Your task to perform on an android device: change the upload size in google photos Image 0: 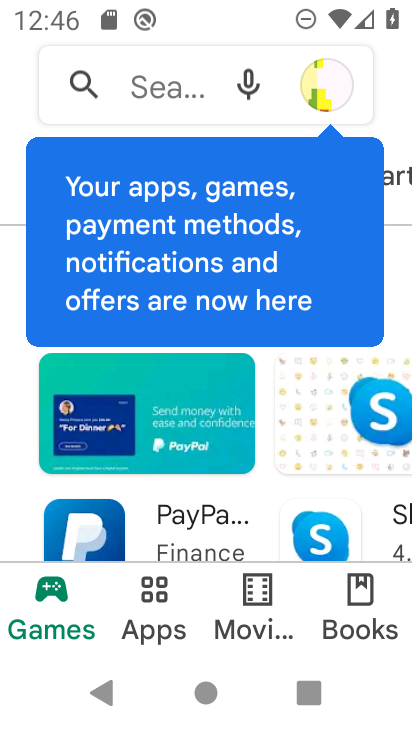
Step 0: press home button
Your task to perform on an android device: change the upload size in google photos Image 1: 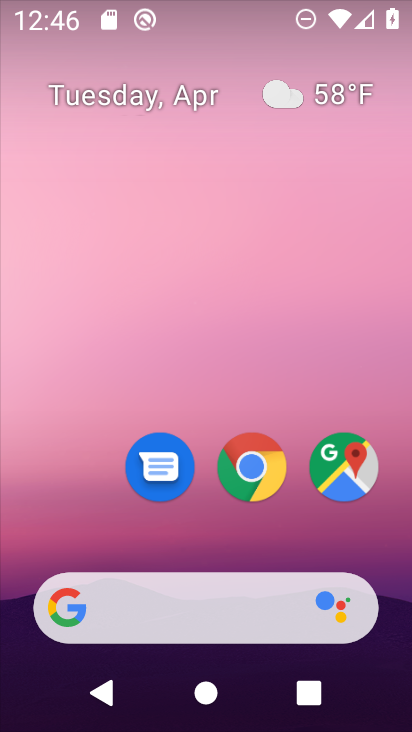
Step 1: drag from (163, 553) to (243, 0)
Your task to perform on an android device: change the upload size in google photos Image 2: 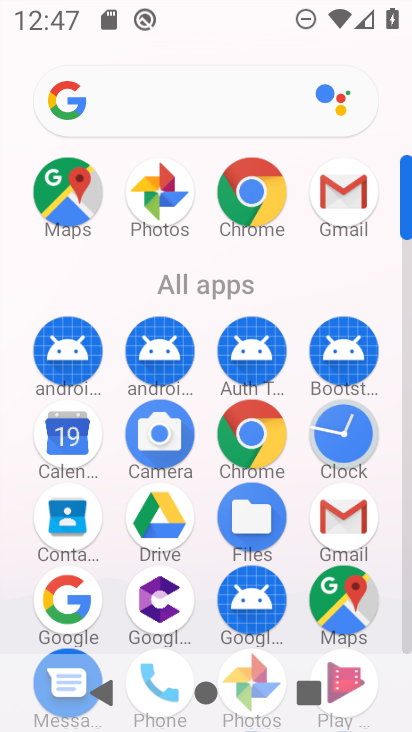
Step 2: click (157, 184)
Your task to perform on an android device: change the upload size in google photos Image 3: 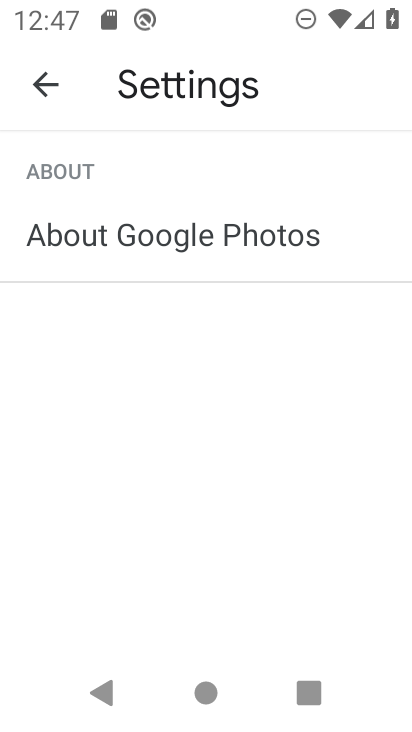
Step 3: click (54, 86)
Your task to perform on an android device: change the upload size in google photos Image 4: 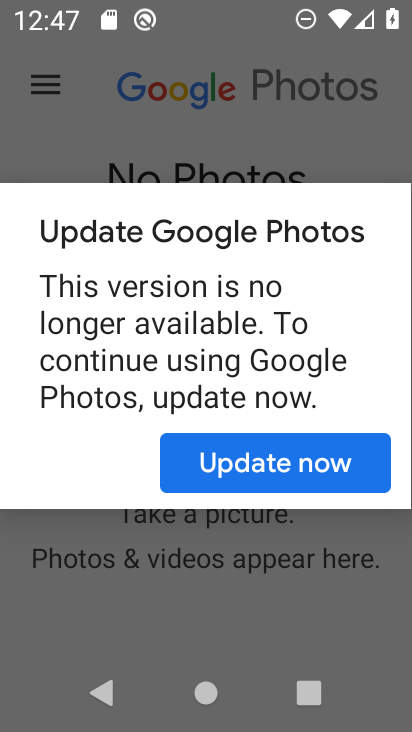
Step 4: click (244, 458)
Your task to perform on an android device: change the upload size in google photos Image 5: 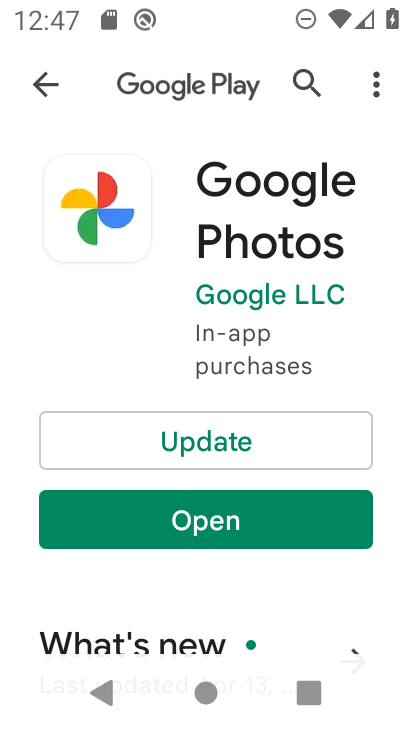
Step 5: click (191, 514)
Your task to perform on an android device: change the upload size in google photos Image 6: 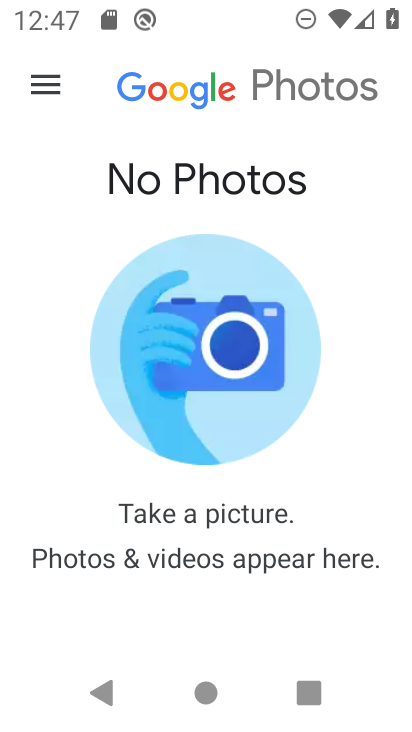
Step 6: click (26, 83)
Your task to perform on an android device: change the upload size in google photos Image 7: 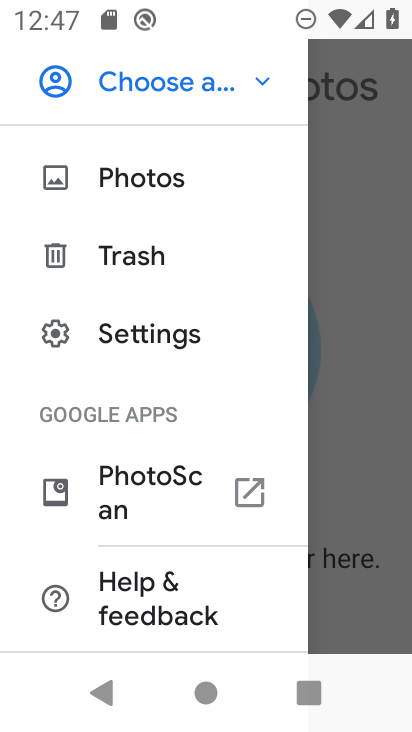
Step 7: click (188, 340)
Your task to perform on an android device: change the upload size in google photos Image 8: 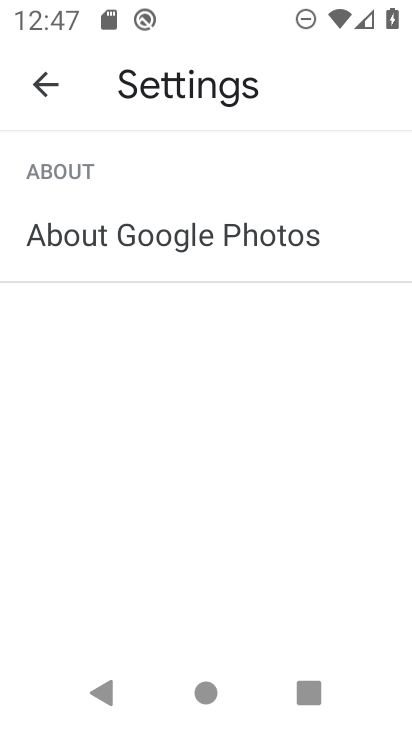
Step 8: click (162, 262)
Your task to perform on an android device: change the upload size in google photos Image 9: 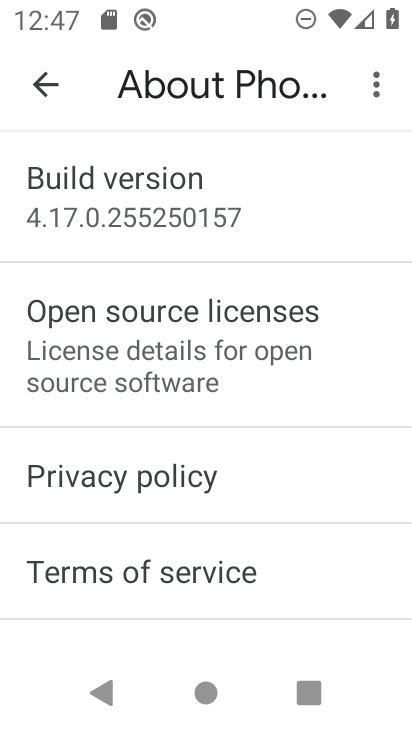
Step 9: drag from (149, 539) to (208, 164)
Your task to perform on an android device: change the upload size in google photos Image 10: 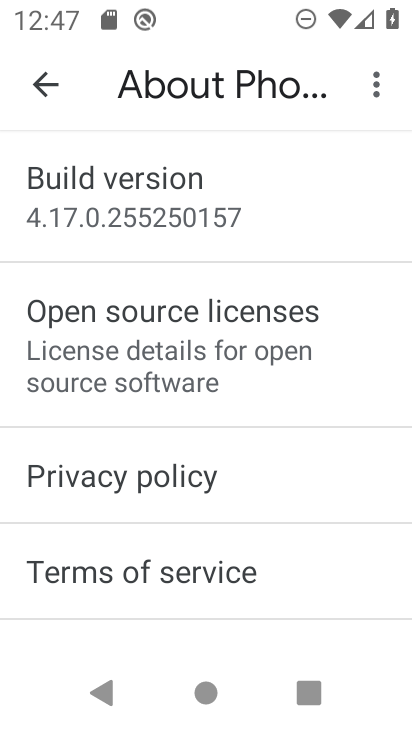
Step 10: drag from (220, 565) to (216, 140)
Your task to perform on an android device: change the upload size in google photos Image 11: 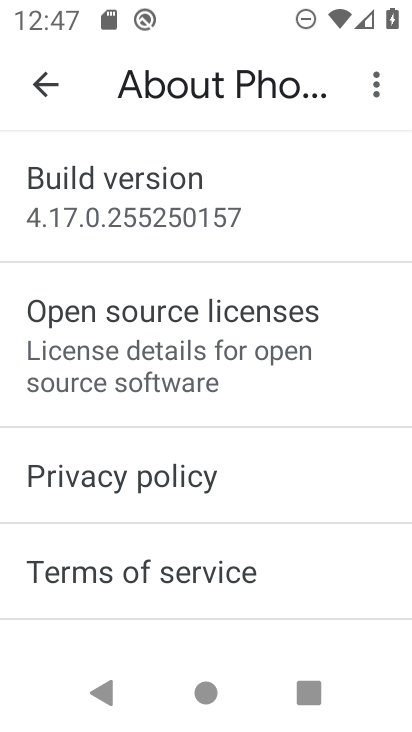
Step 11: click (383, 99)
Your task to perform on an android device: change the upload size in google photos Image 12: 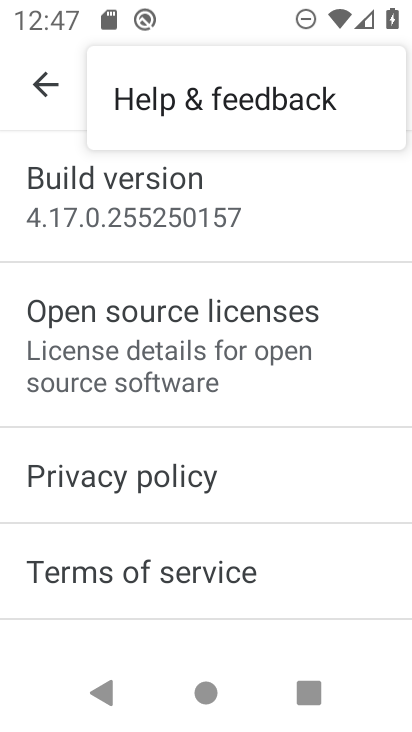
Step 12: click (31, 111)
Your task to perform on an android device: change the upload size in google photos Image 13: 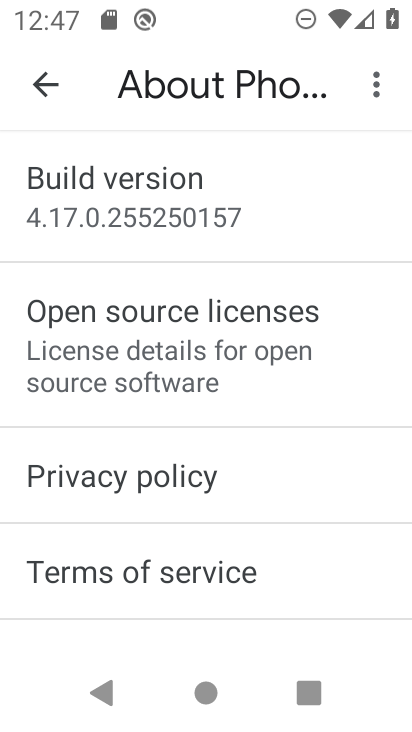
Step 13: click (56, 87)
Your task to perform on an android device: change the upload size in google photos Image 14: 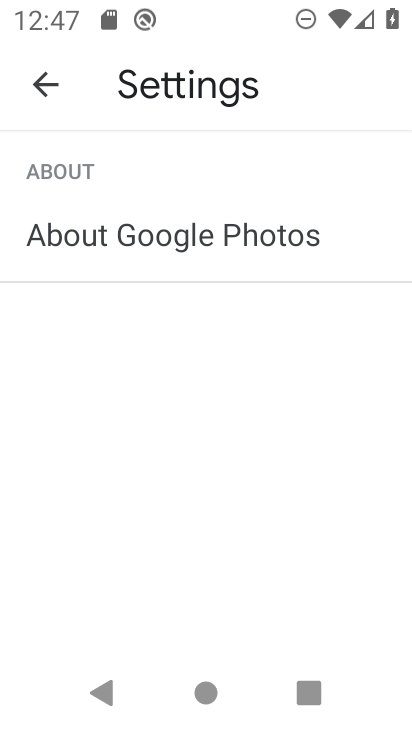
Step 14: click (56, 87)
Your task to perform on an android device: change the upload size in google photos Image 15: 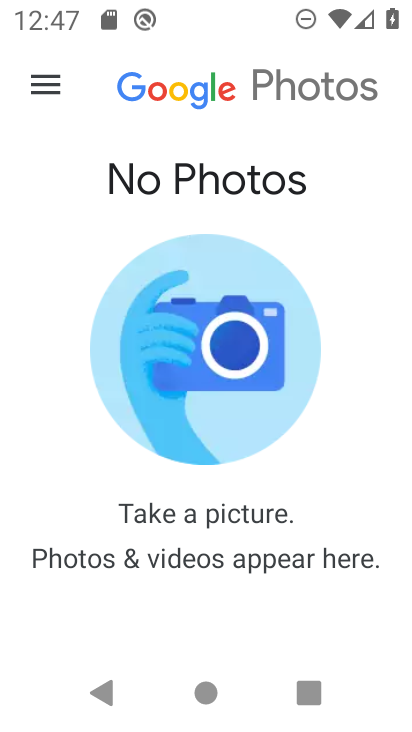
Step 15: click (56, 87)
Your task to perform on an android device: change the upload size in google photos Image 16: 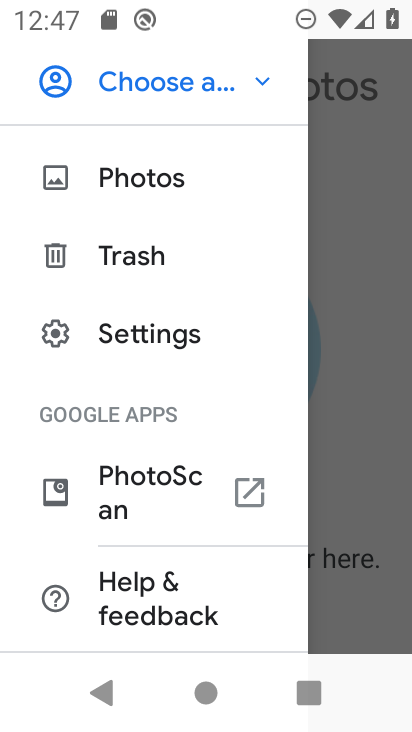
Step 16: drag from (184, 582) to (162, 136)
Your task to perform on an android device: change the upload size in google photos Image 17: 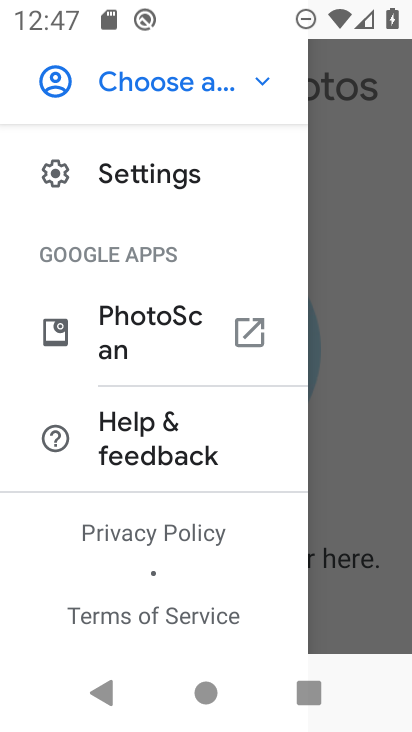
Step 17: drag from (184, 237) to (189, 702)
Your task to perform on an android device: change the upload size in google photos Image 18: 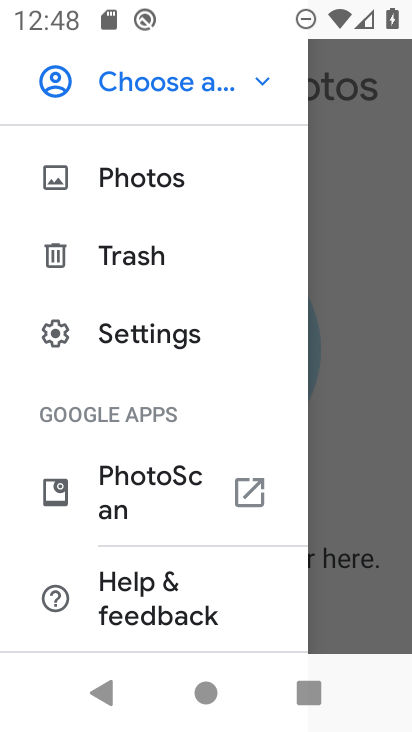
Step 18: drag from (212, 216) to (219, 482)
Your task to perform on an android device: change the upload size in google photos Image 19: 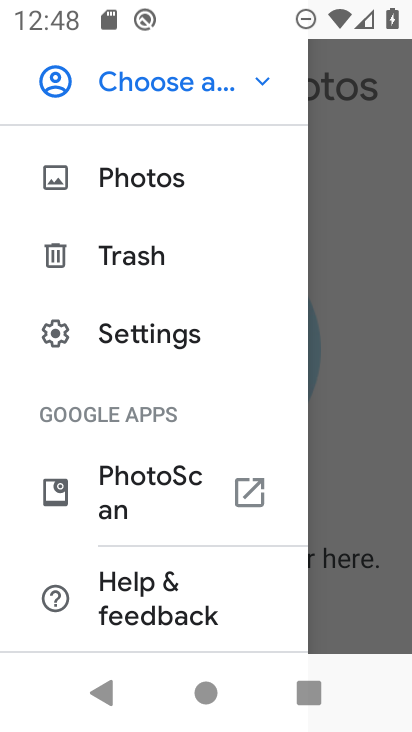
Step 19: click (212, 77)
Your task to perform on an android device: change the upload size in google photos Image 20: 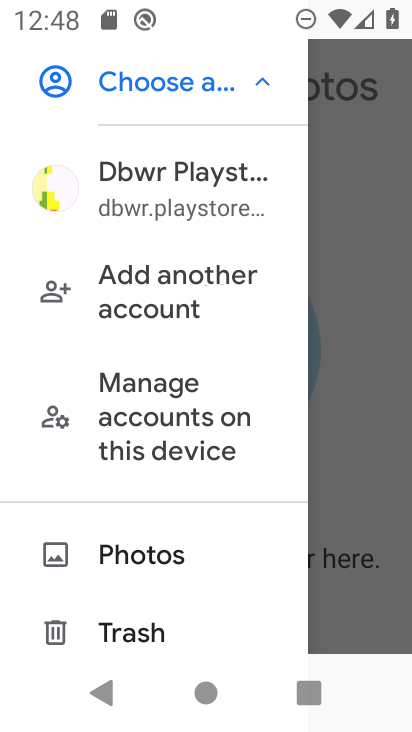
Step 20: click (132, 180)
Your task to perform on an android device: change the upload size in google photos Image 21: 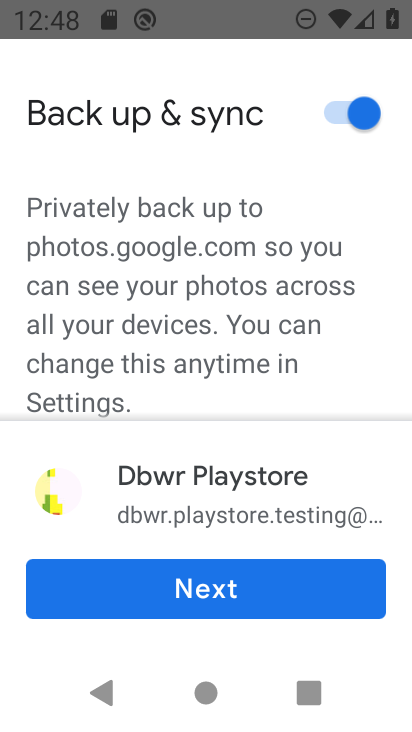
Step 21: click (216, 567)
Your task to perform on an android device: change the upload size in google photos Image 22: 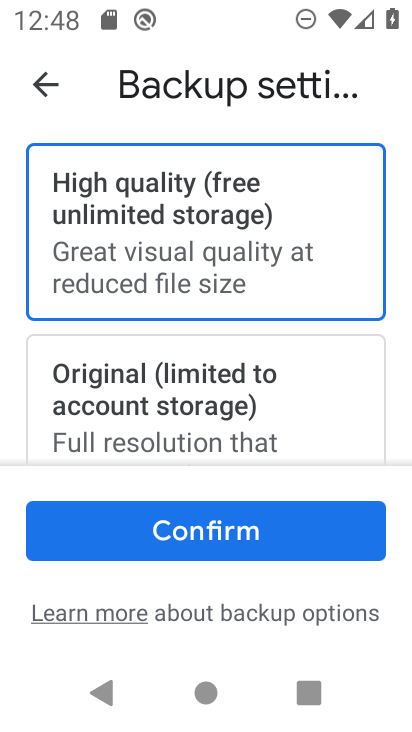
Step 22: click (196, 378)
Your task to perform on an android device: change the upload size in google photos Image 23: 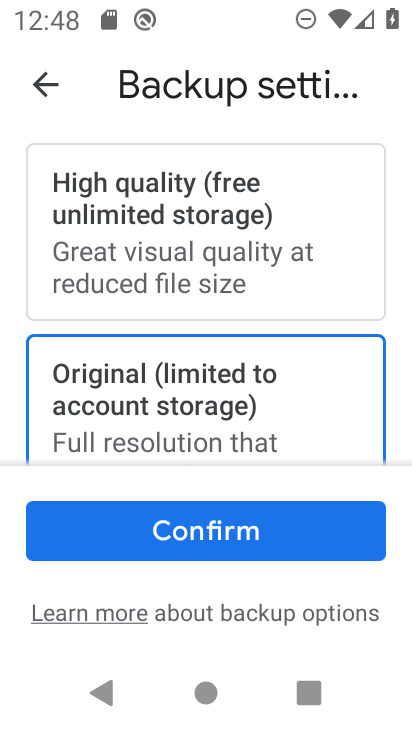
Step 23: task complete